Your task to perform on an android device: open a new tab in the chrome app Image 0: 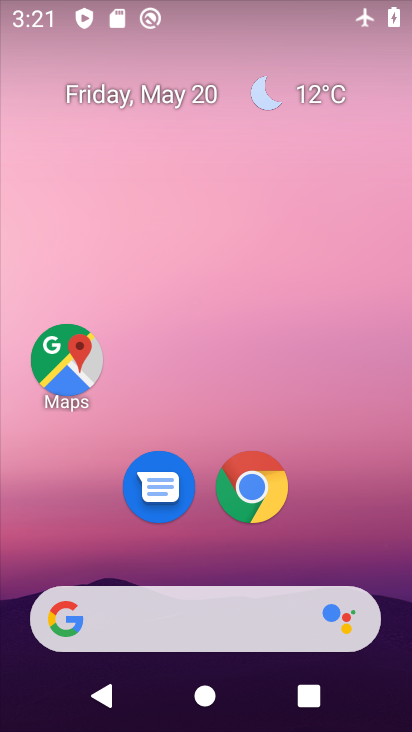
Step 0: click (260, 493)
Your task to perform on an android device: open a new tab in the chrome app Image 1: 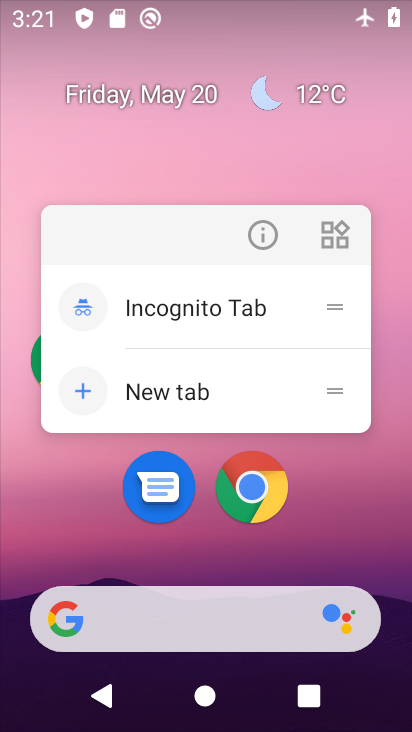
Step 1: click (258, 493)
Your task to perform on an android device: open a new tab in the chrome app Image 2: 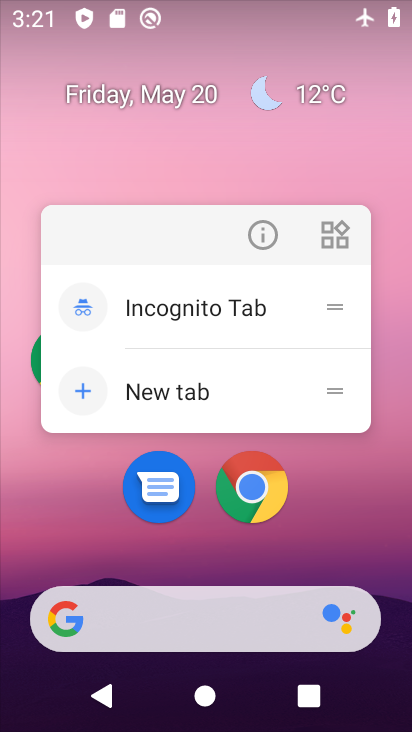
Step 2: click (248, 485)
Your task to perform on an android device: open a new tab in the chrome app Image 3: 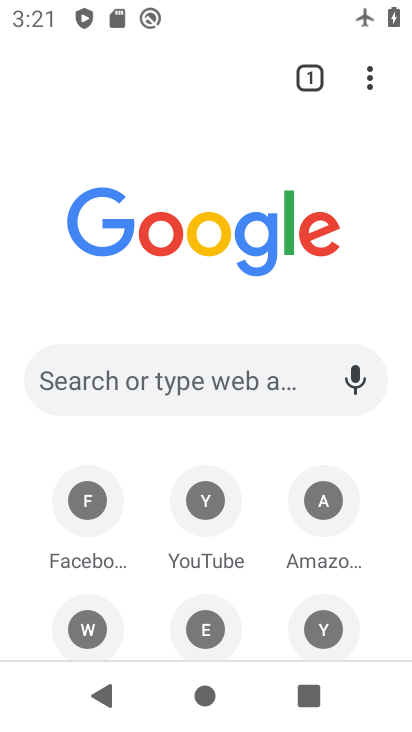
Step 3: click (316, 70)
Your task to perform on an android device: open a new tab in the chrome app Image 4: 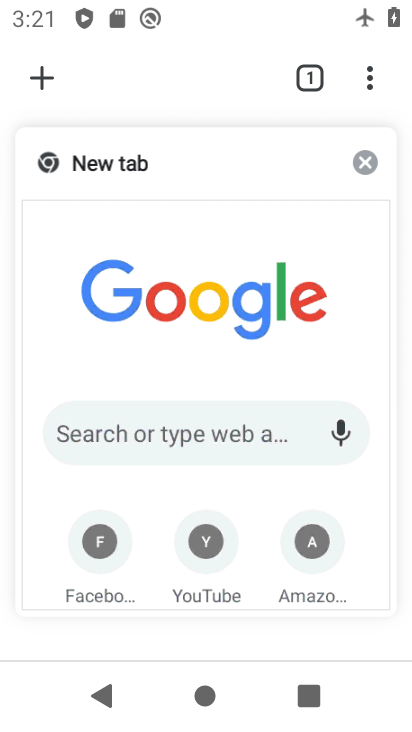
Step 4: click (44, 89)
Your task to perform on an android device: open a new tab in the chrome app Image 5: 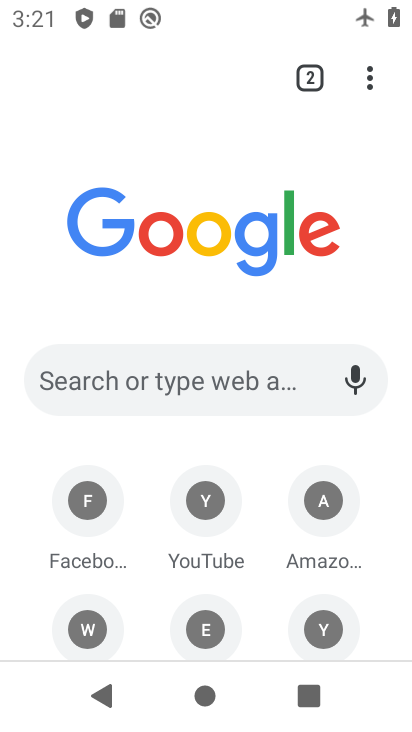
Step 5: task complete